Your task to perform on an android device: turn on wifi Image 0: 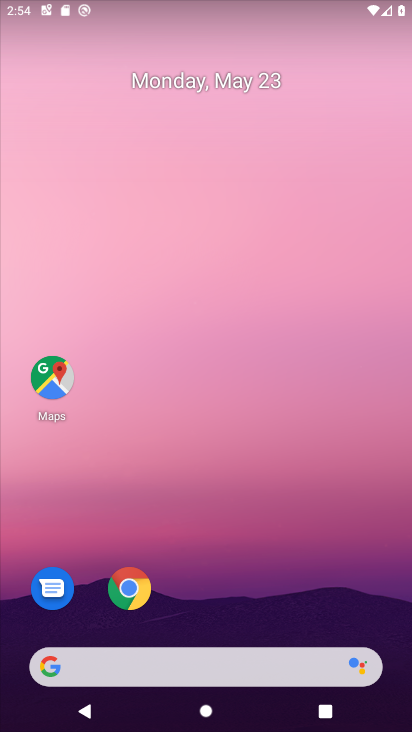
Step 0: drag from (189, 628) to (239, 21)
Your task to perform on an android device: turn on wifi Image 1: 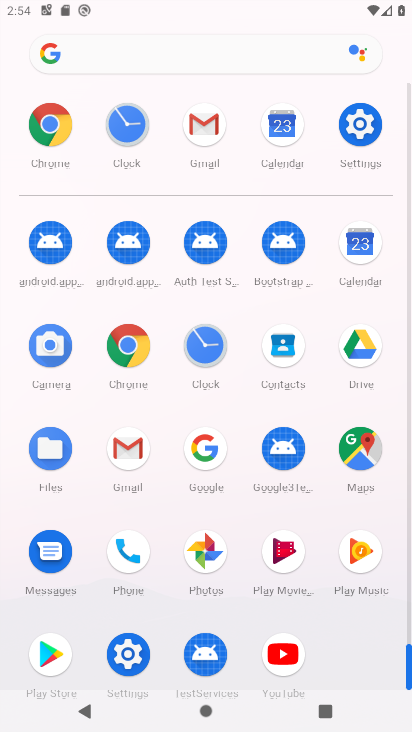
Step 1: click (372, 134)
Your task to perform on an android device: turn on wifi Image 2: 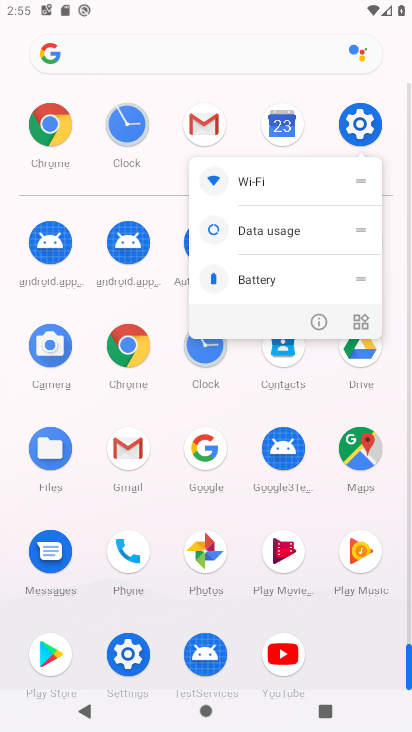
Step 2: click (317, 325)
Your task to perform on an android device: turn on wifi Image 3: 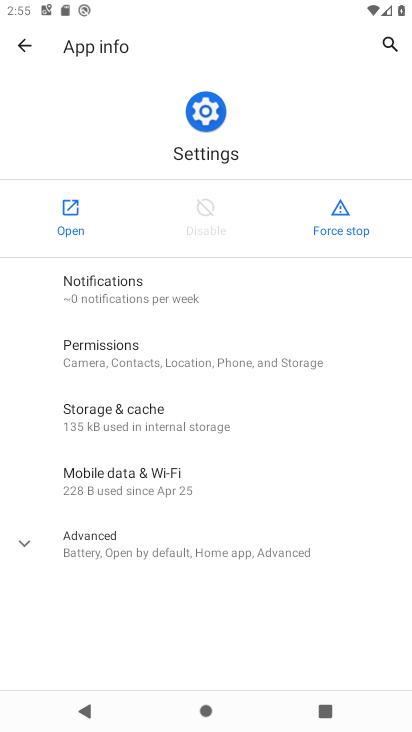
Step 3: click (71, 220)
Your task to perform on an android device: turn on wifi Image 4: 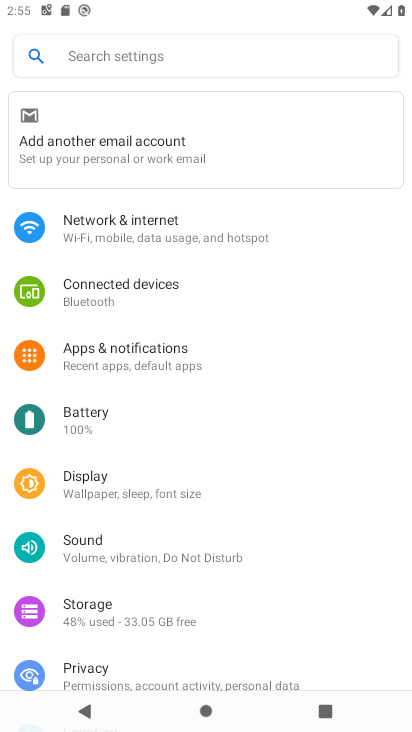
Step 4: click (109, 234)
Your task to perform on an android device: turn on wifi Image 5: 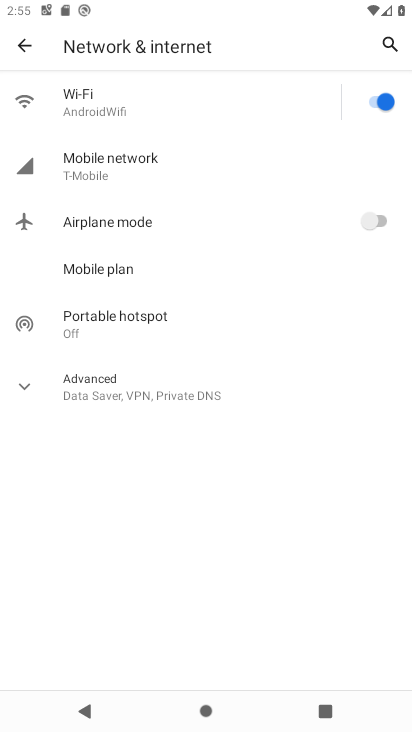
Step 5: task complete